Your task to perform on an android device: read, delete, or share a saved page in the chrome app Image 0: 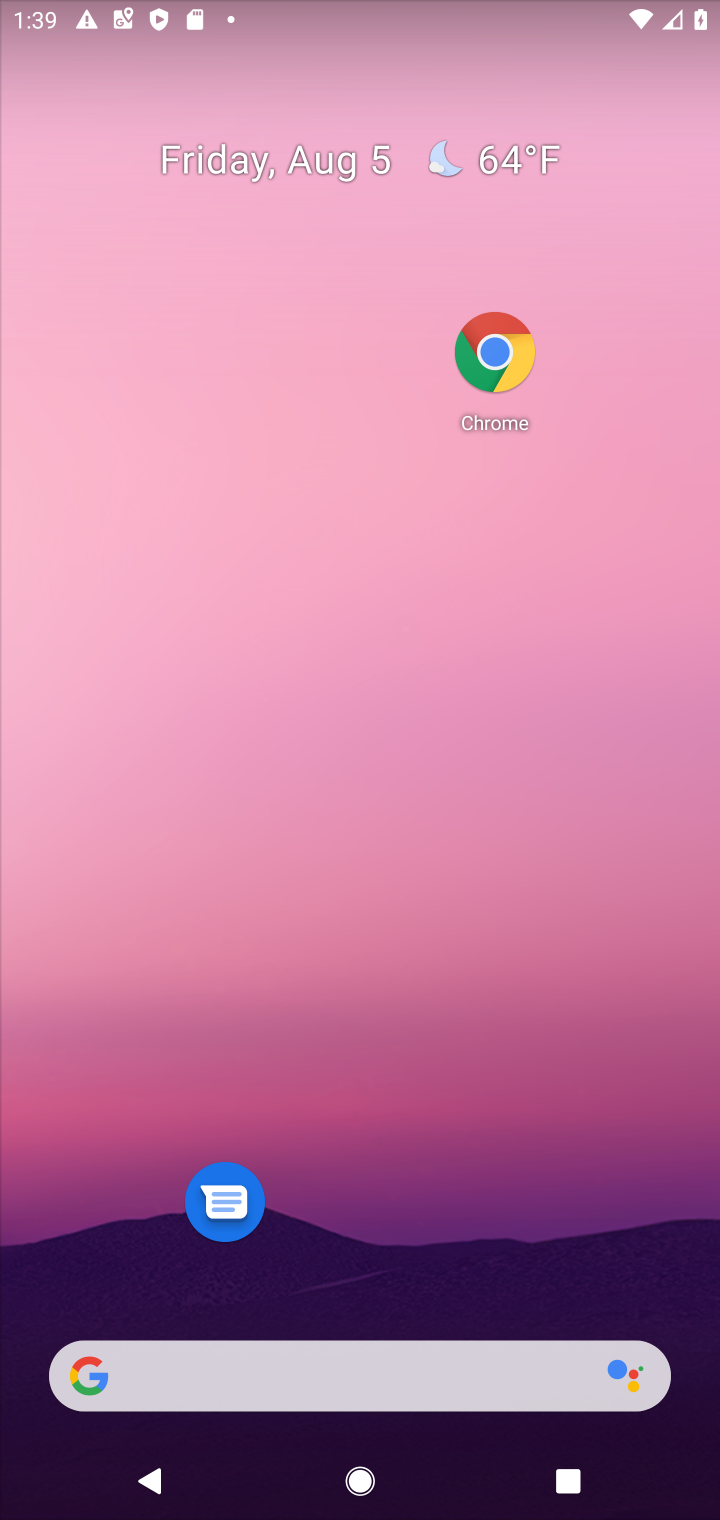
Step 0: drag from (446, 912) to (30, 0)
Your task to perform on an android device: read, delete, or share a saved page in the chrome app Image 1: 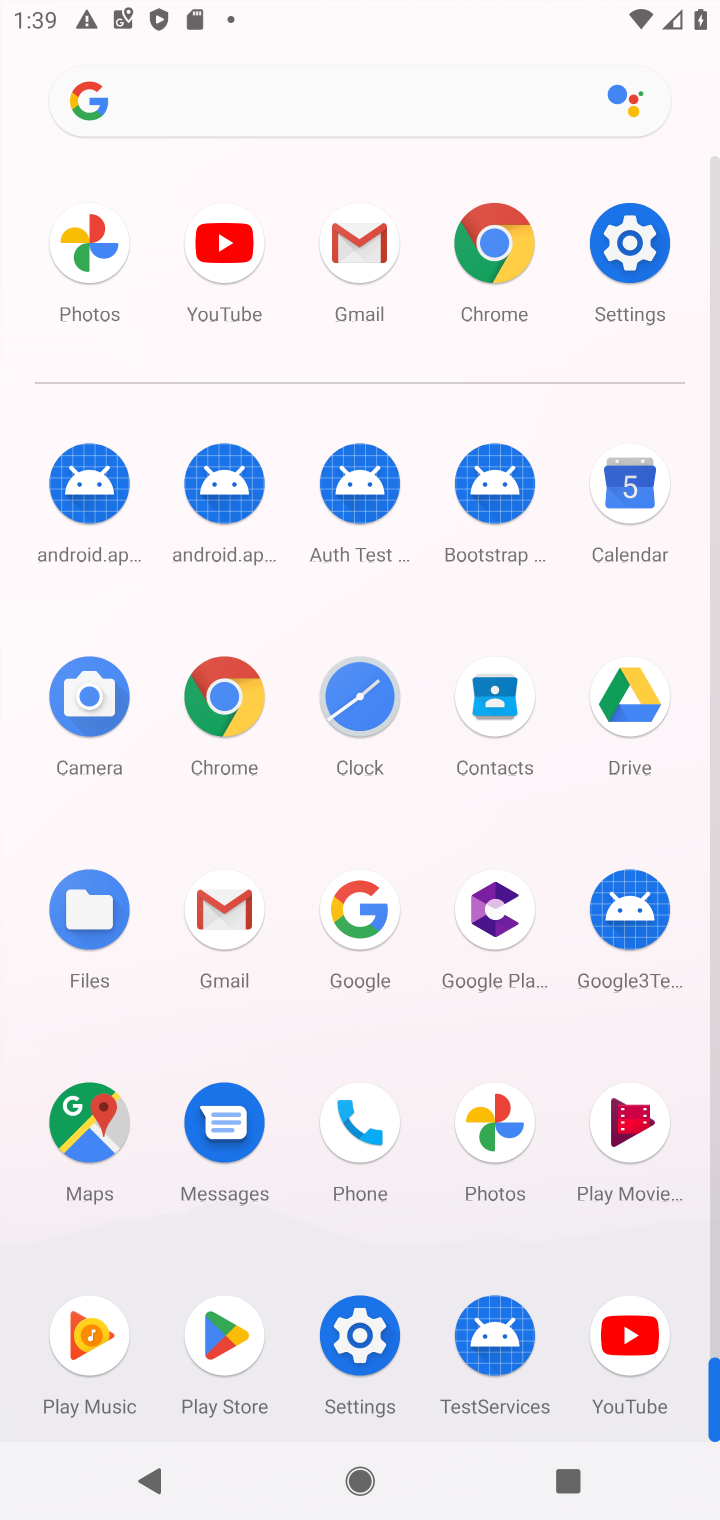
Step 1: click (219, 704)
Your task to perform on an android device: read, delete, or share a saved page in the chrome app Image 2: 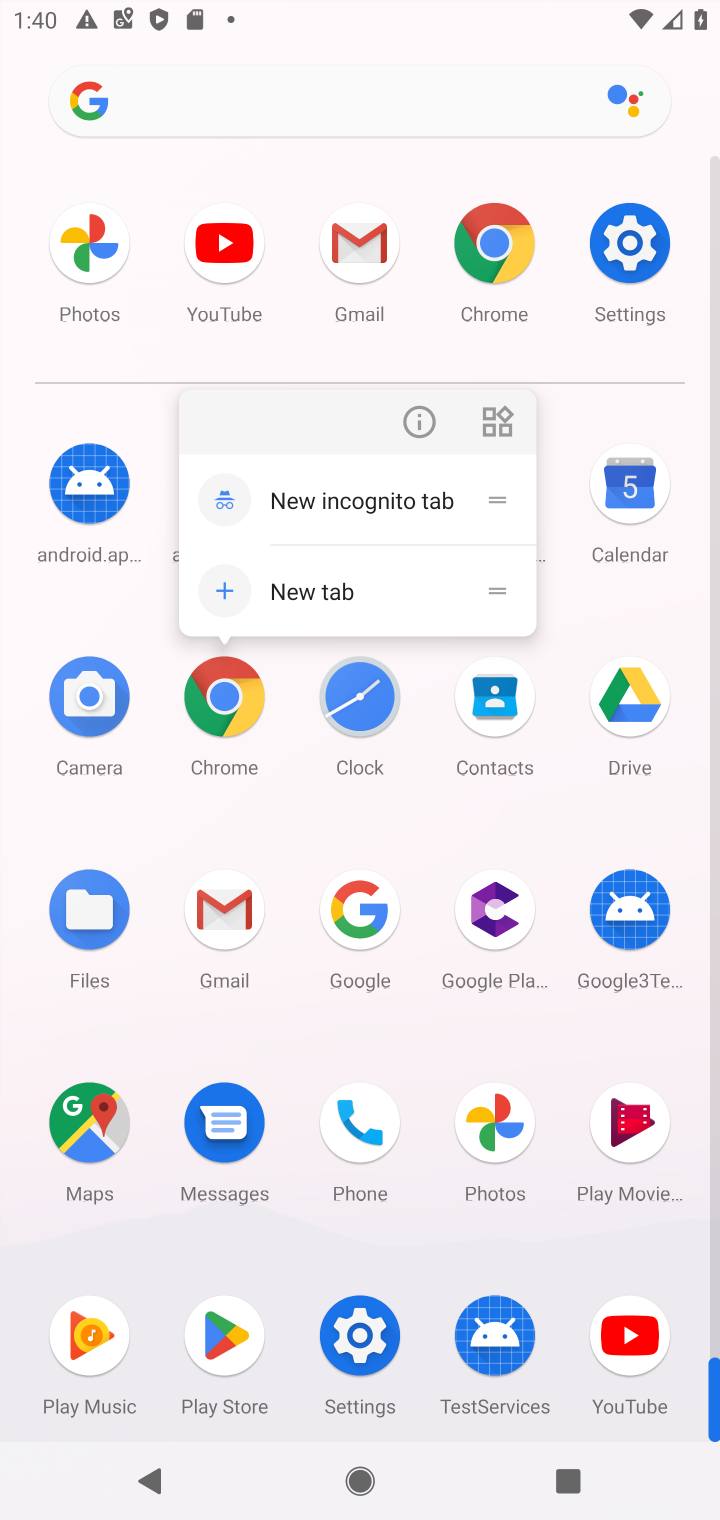
Step 2: click (220, 700)
Your task to perform on an android device: read, delete, or share a saved page in the chrome app Image 3: 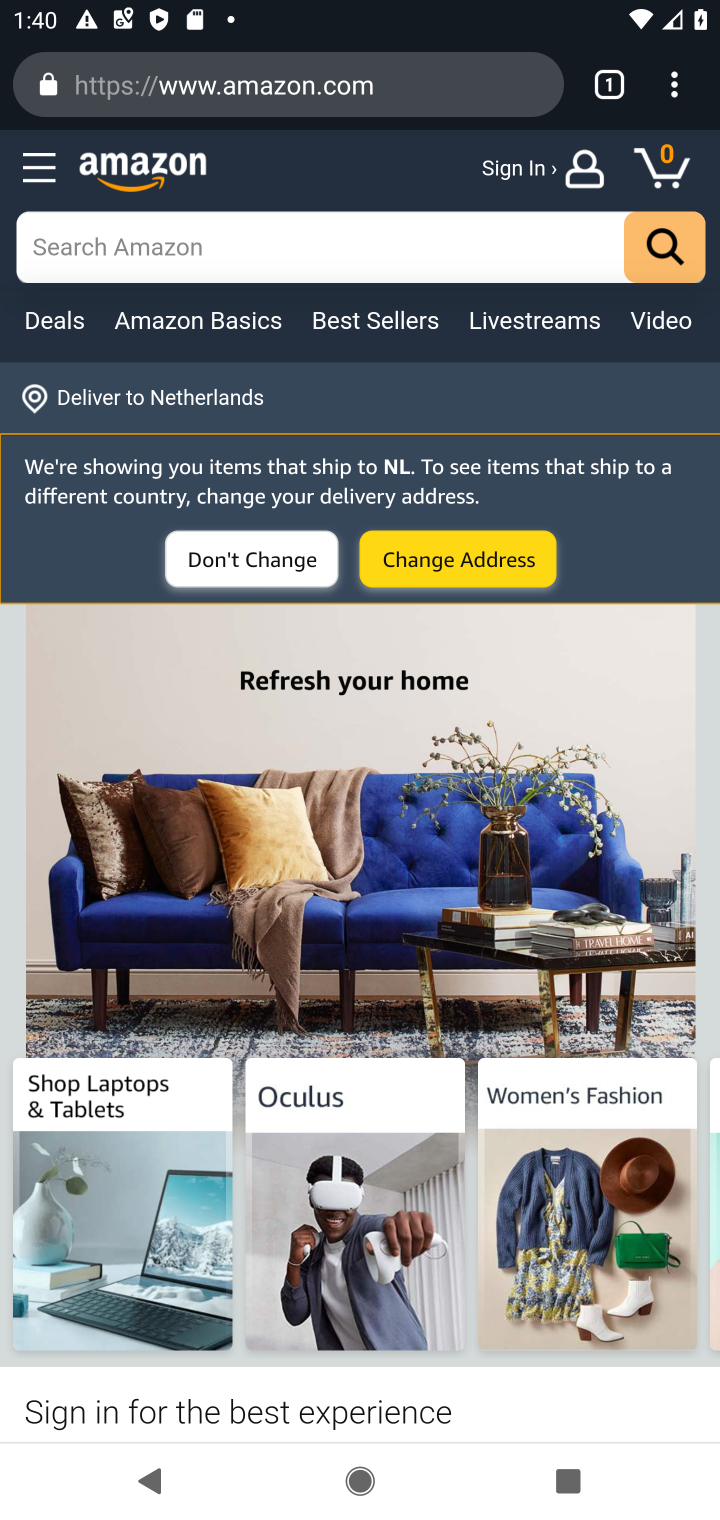
Step 3: task complete